Your task to perform on an android device: Open display settings Image 0: 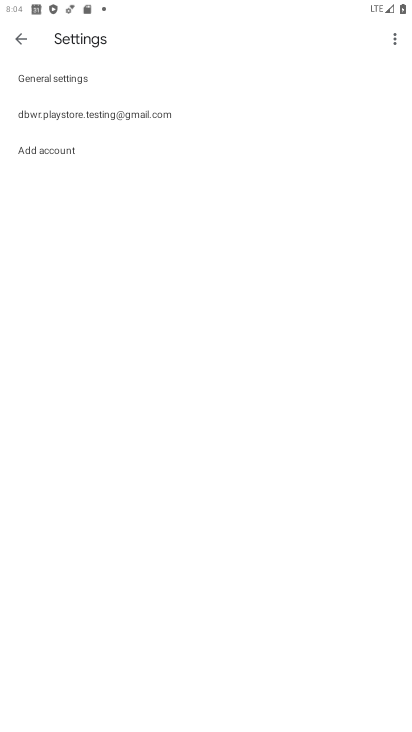
Step 0: press home button
Your task to perform on an android device: Open display settings Image 1: 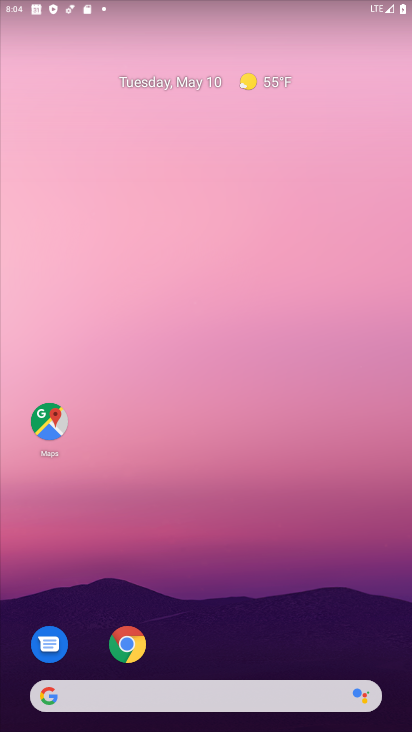
Step 1: drag from (266, 515) to (315, 81)
Your task to perform on an android device: Open display settings Image 2: 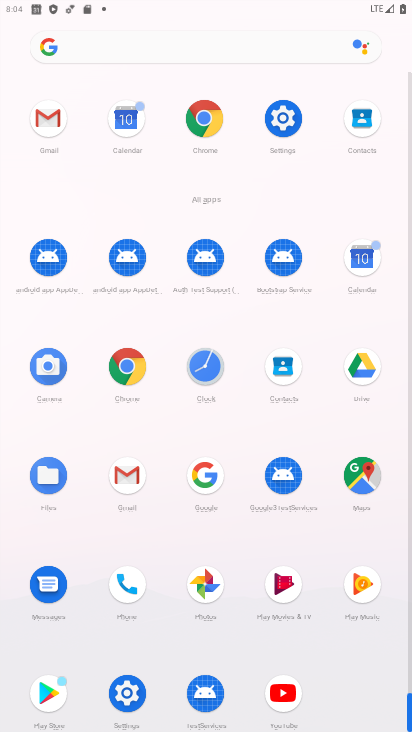
Step 2: click (290, 108)
Your task to perform on an android device: Open display settings Image 3: 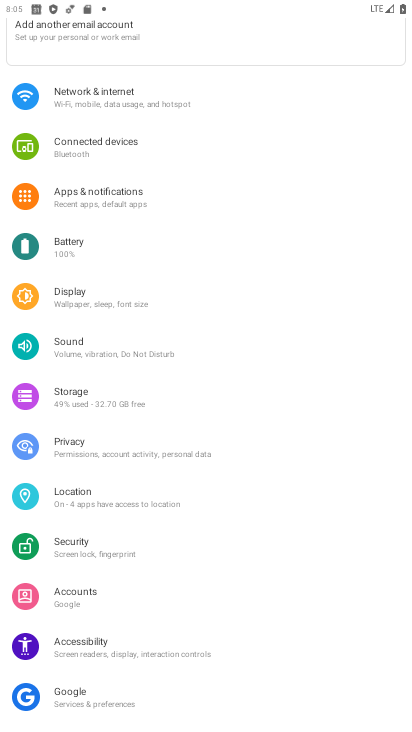
Step 3: click (141, 294)
Your task to perform on an android device: Open display settings Image 4: 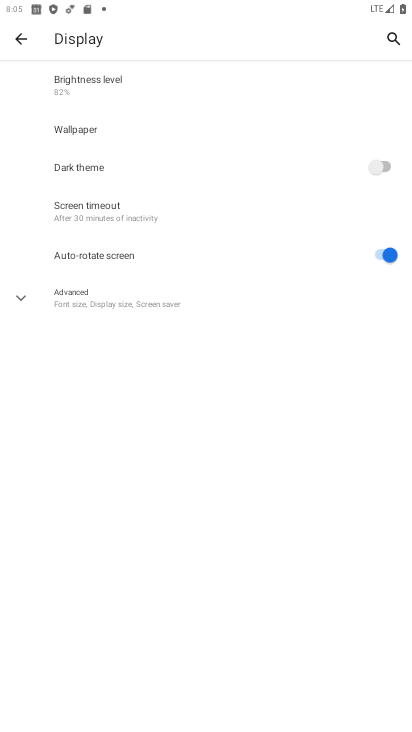
Step 4: task complete